Your task to perform on an android device: refresh tabs in the chrome app Image 0: 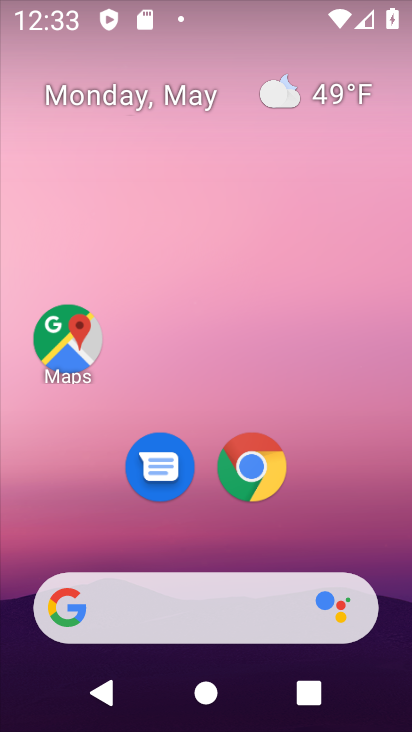
Step 0: drag from (374, 561) to (326, 171)
Your task to perform on an android device: refresh tabs in the chrome app Image 1: 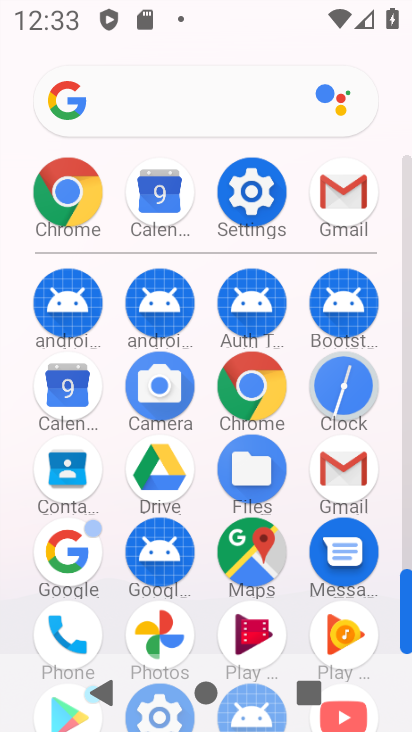
Step 1: click (232, 377)
Your task to perform on an android device: refresh tabs in the chrome app Image 2: 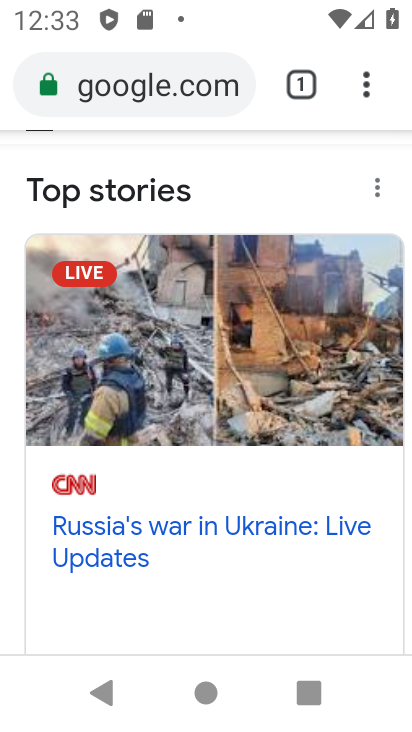
Step 2: click (182, 78)
Your task to perform on an android device: refresh tabs in the chrome app Image 3: 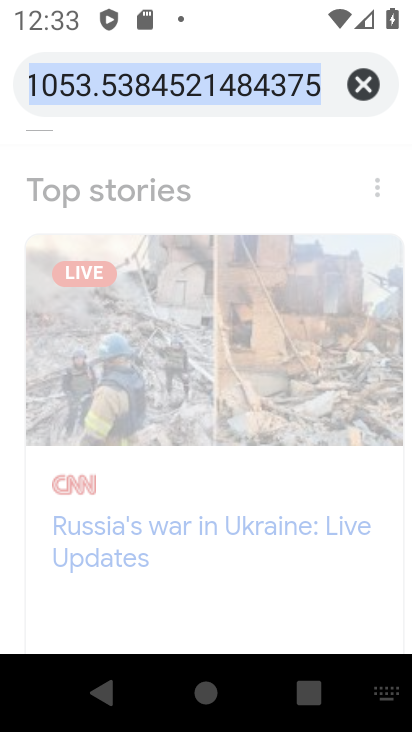
Step 3: click (363, 93)
Your task to perform on an android device: refresh tabs in the chrome app Image 4: 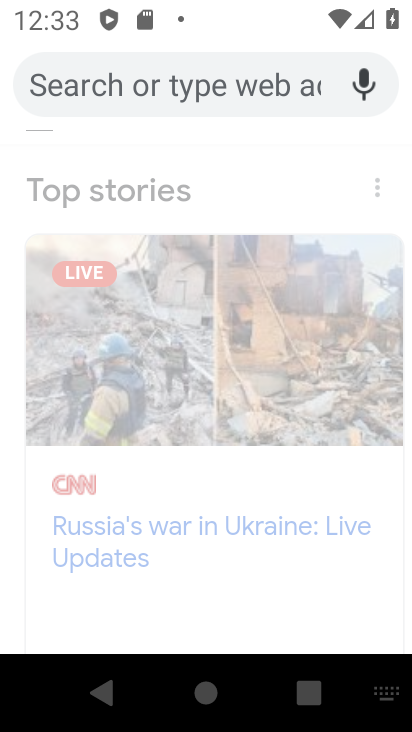
Step 4: press back button
Your task to perform on an android device: refresh tabs in the chrome app Image 5: 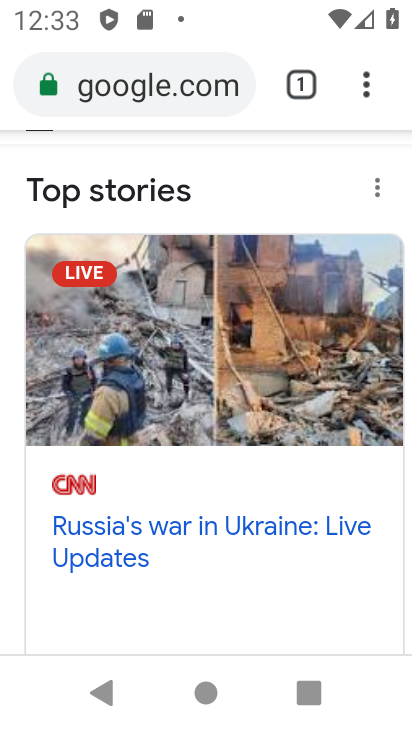
Step 5: click (363, 102)
Your task to perform on an android device: refresh tabs in the chrome app Image 6: 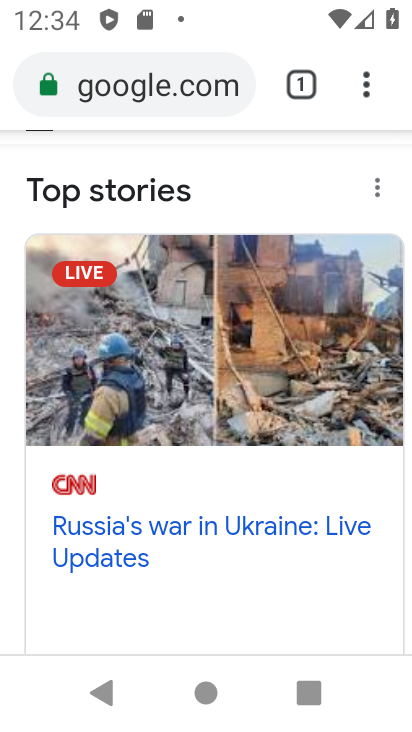
Step 6: task complete